Your task to perform on an android device: Open notification settings Image 0: 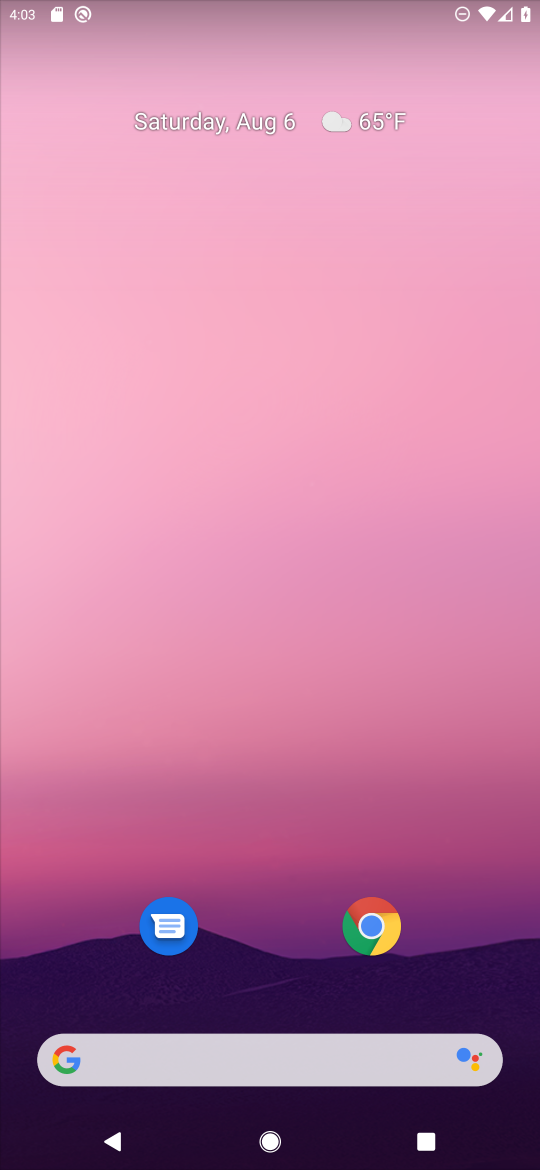
Step 0: drag from (242, 982) to (212, 323)
Your task to perform on an android device: Open notification settings Image 1: 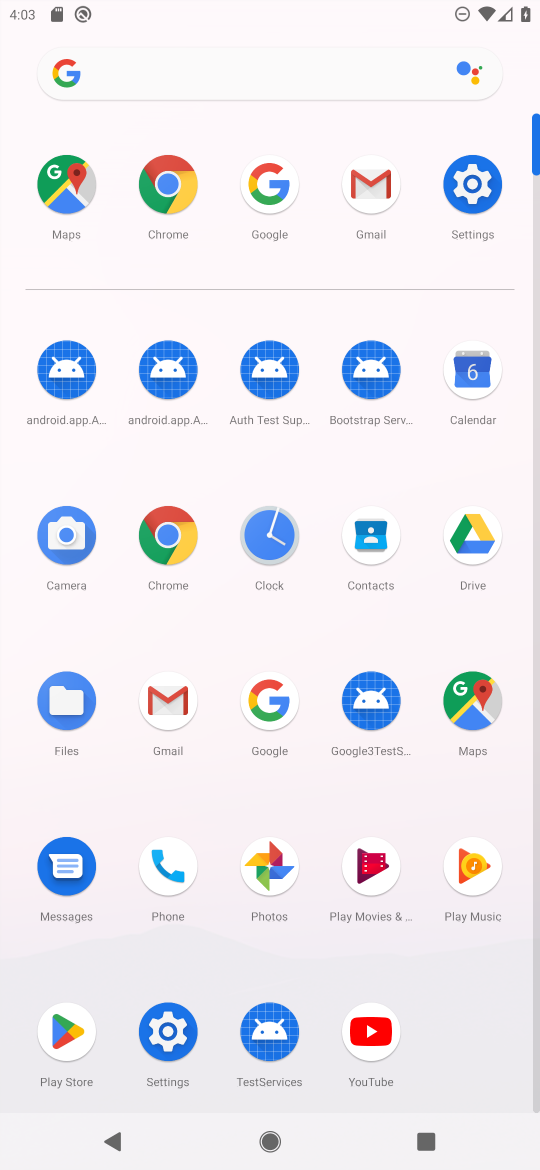
Step 1: click (459, 201)
Your task to perform on an android device: Open notification settings Image 2: 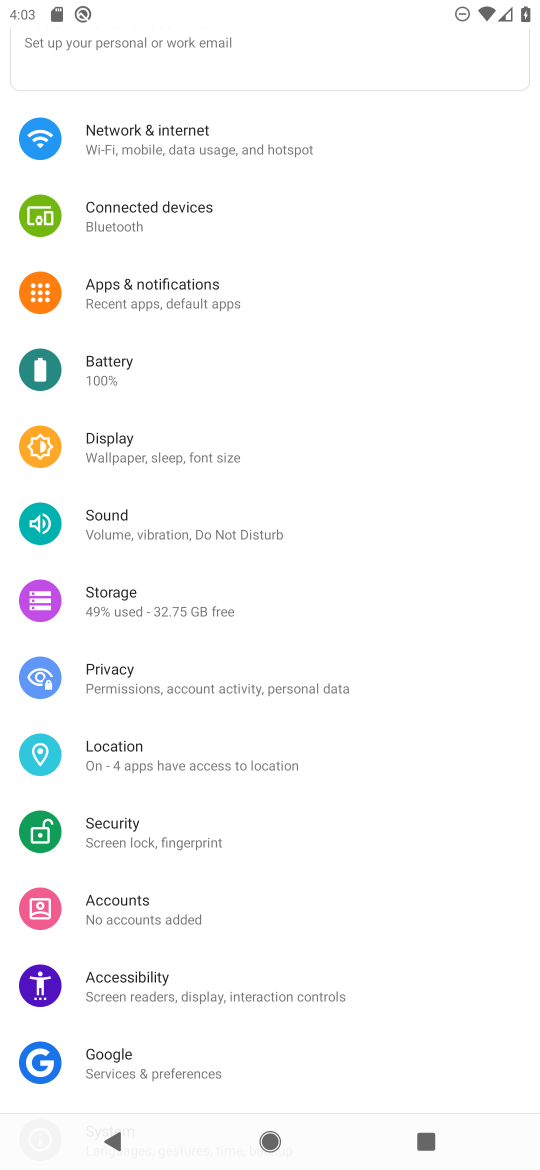
Step 2: click (224, 299)
Your task to perform on an android device: Open notification settings Image 3: 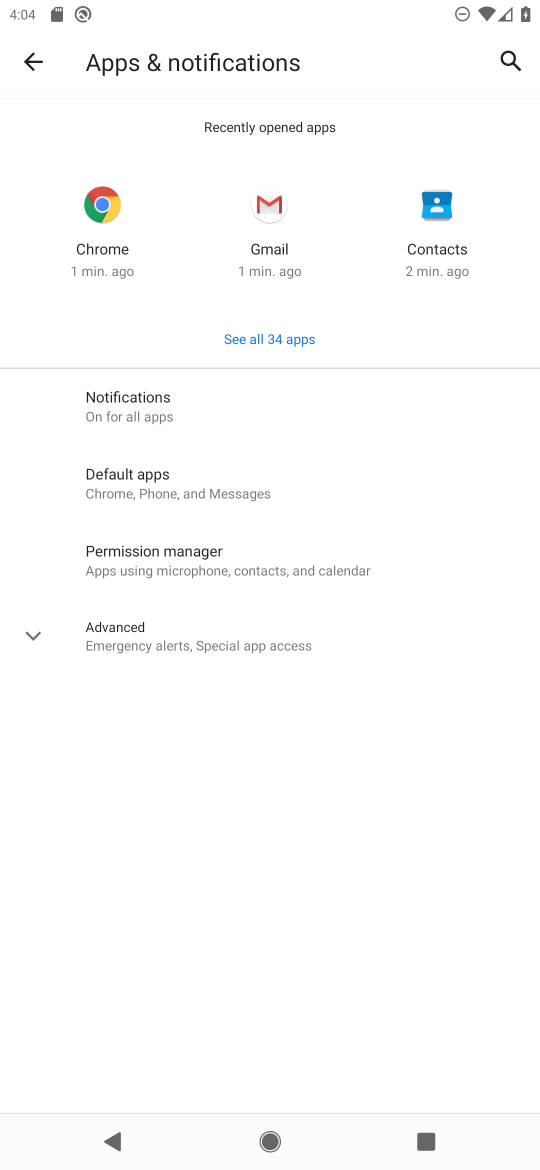
Step 3: click (137, 429)
Your task to perform on an android device: Open notification settings Image 4: 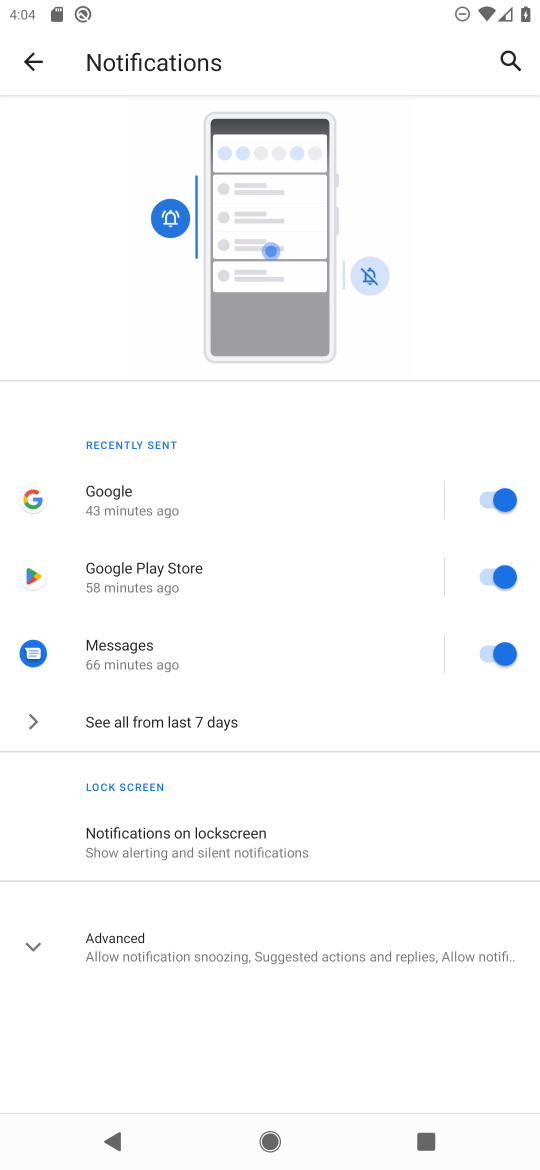
Step 4: task complete